Your task to perform on an android device: Open settings on Google Maps Image 0: 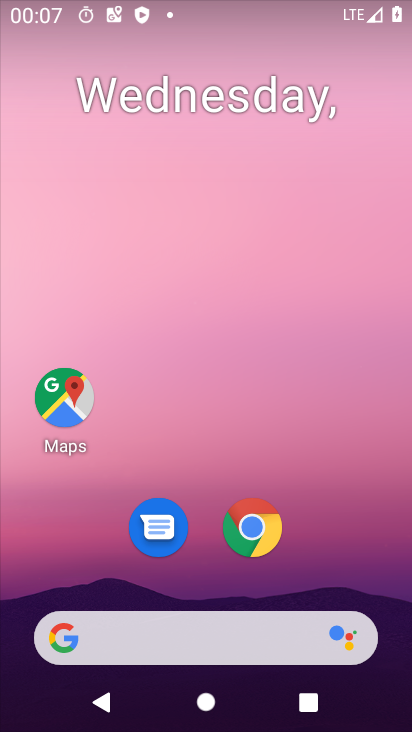
Step 0: drag from (178, 587) to (248, 86)
Your task to perform on an android device: Open settings on Google Maps Image 1: 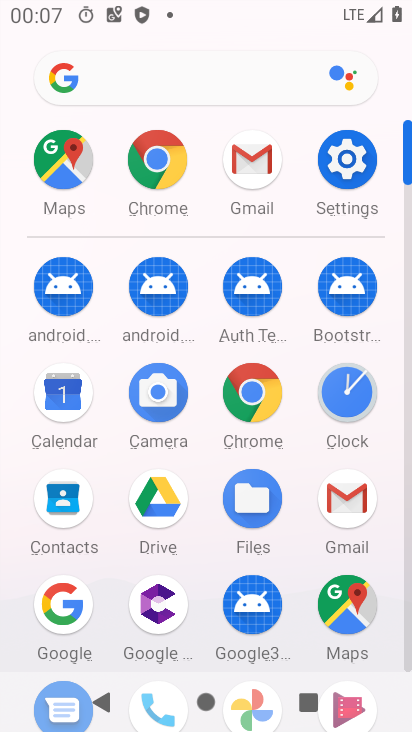
Step 1: click (359, 611)
Your task to perform on an android device: Open settings on Google Maps Image 2: 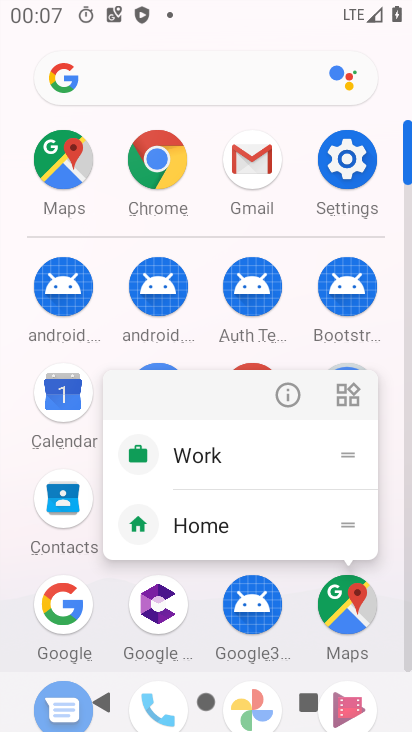
Step 2: click (270, 385)
Your task to perform on an android device: Open settings on Google Maps Image 3: 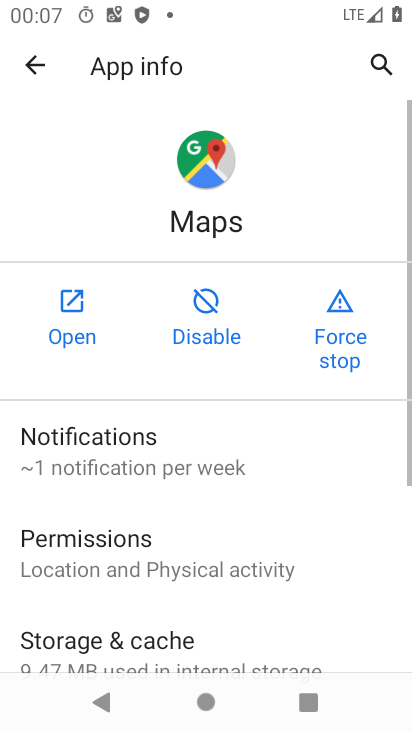
Step 3: click (47, 326)
Your task to perform on an android device: Open settings on Google Maps Image 4: 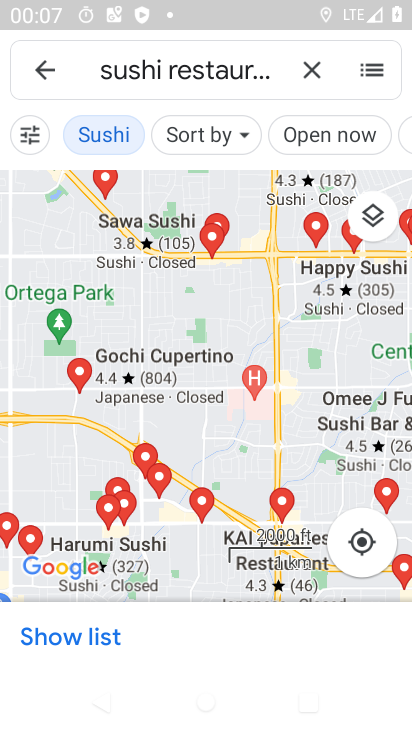
Step 4: click (39, 63)
Your task to perform on an android device: Open settings on Google Maps Image 5: 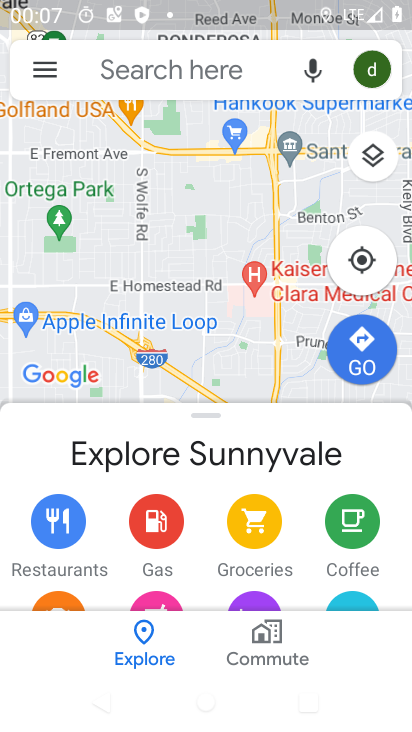
Step 5: click (47, 62)
Your task to perform on an android device: Open settings on Google Maps Image 6: 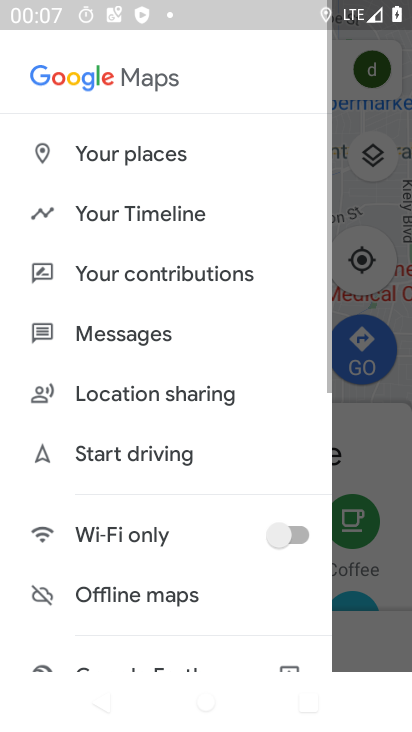
Step 6: drag from (192, 606) to (239, 41)
Your task to perform on an android device: Open settings on Google Maps Image 7: 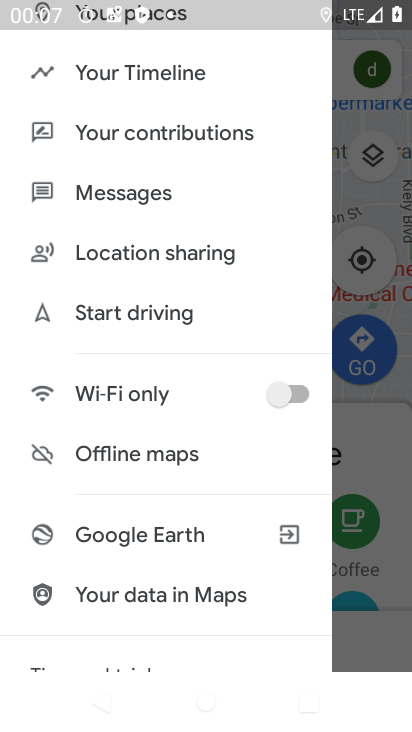
Step 7: drag from (129, 556) to (248, 25)
Your task to perform on an android device: Open settings on Google Maps Image 8: 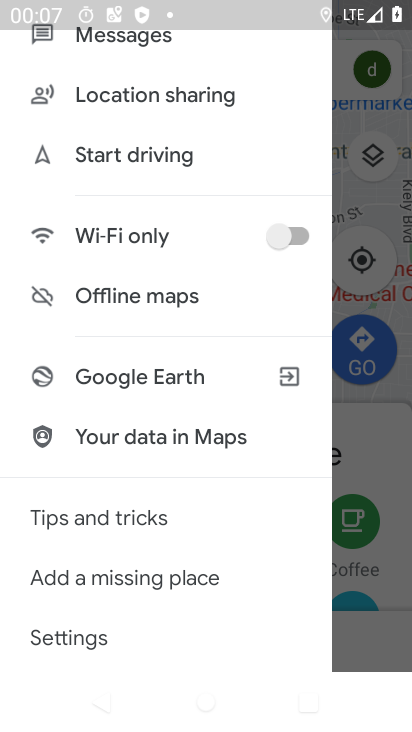
Step 8: click (129, 621)
Your task to perform on an android device: Open settings on Google Maps Image 9: 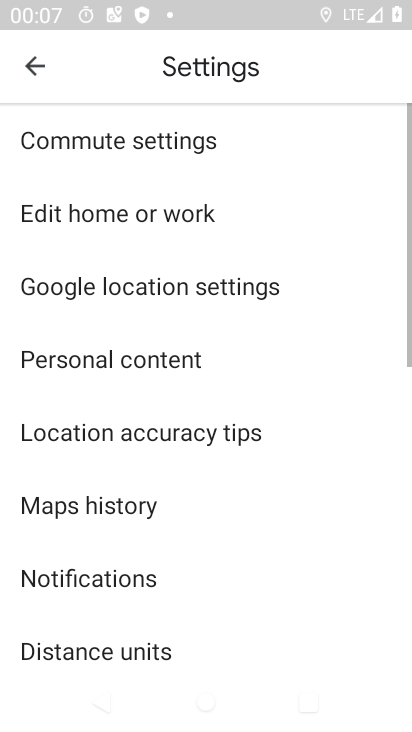
Step 9: task complete